Your task to perform on an android device: Open the calendar and show me this week's events? Image 0: 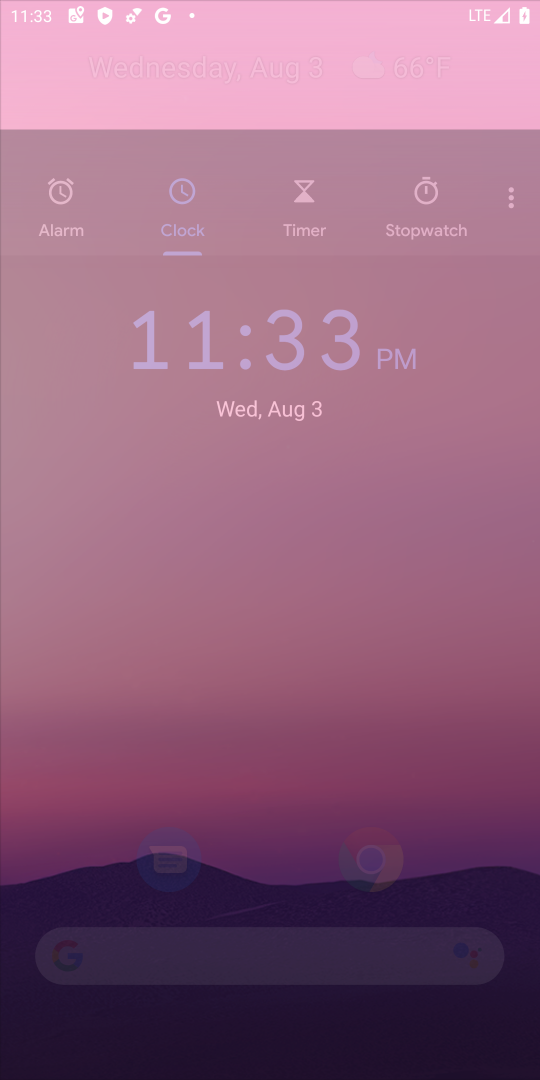
Step 0: press home button
Your task to perform on an android device: Open the calendar and show me this week's events? Image 1: 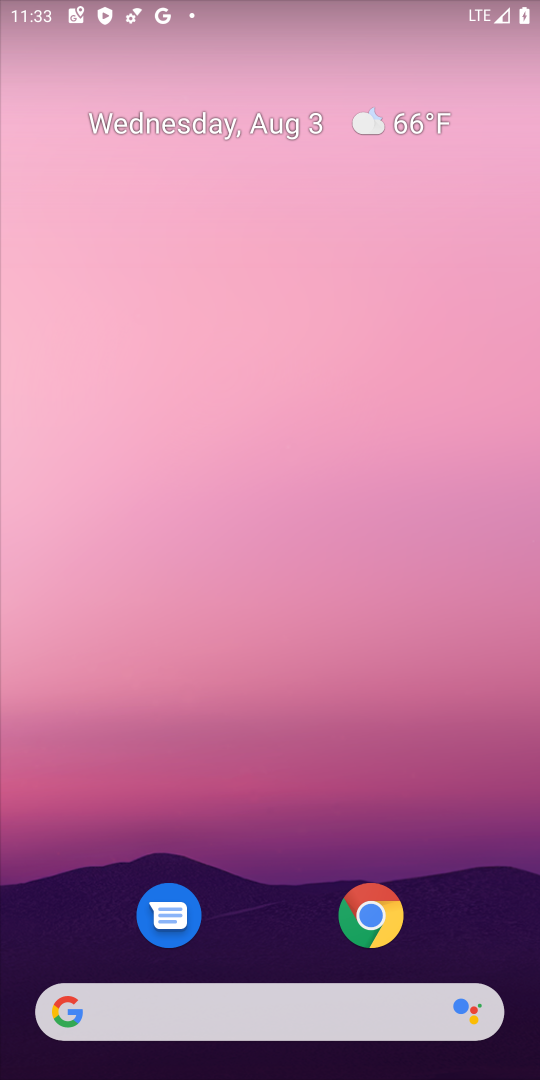
Step 1: drag from (234, 936) to (123, 265)
Your task to perform on an android device: Open the calendar and show me this week's events? Image 2: 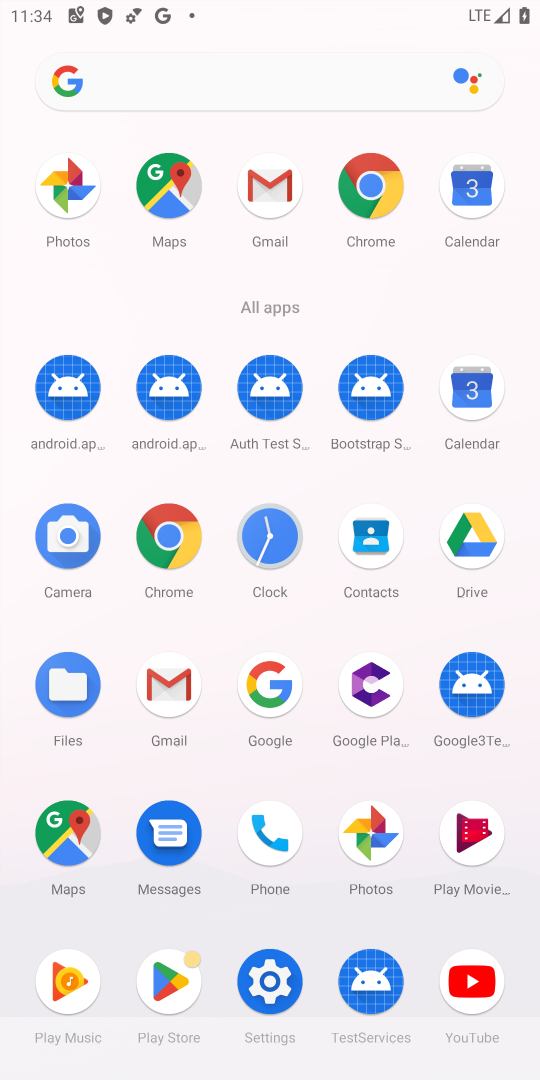
Step 2: click (483, 373)
Your task to perform on an android device: Open the calendar and show me this week's events? Image 3: 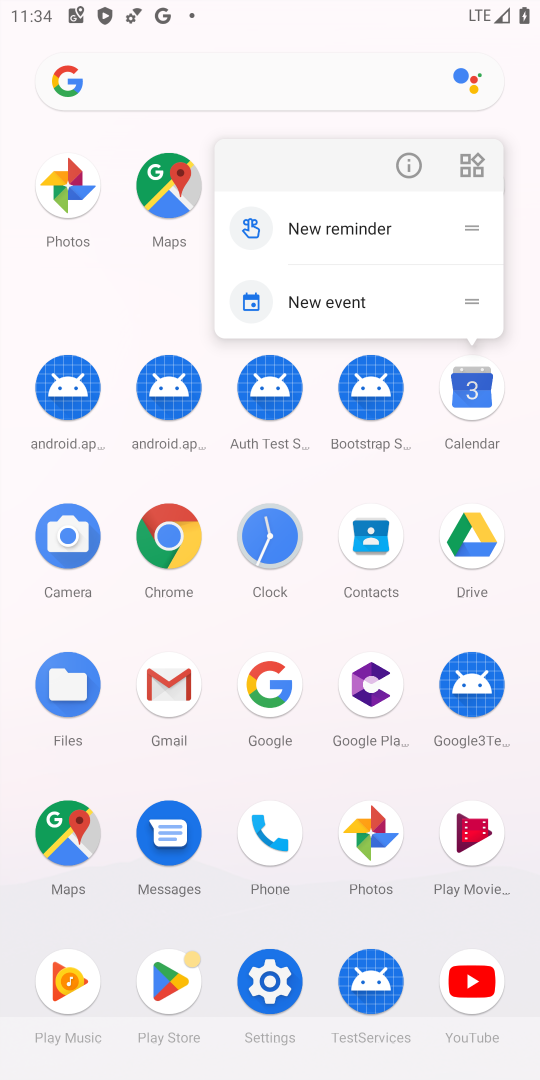
Step 3: click (473, 413)
Your task to perform on an android device: Open the calendar and show me this week's events? Image 4: 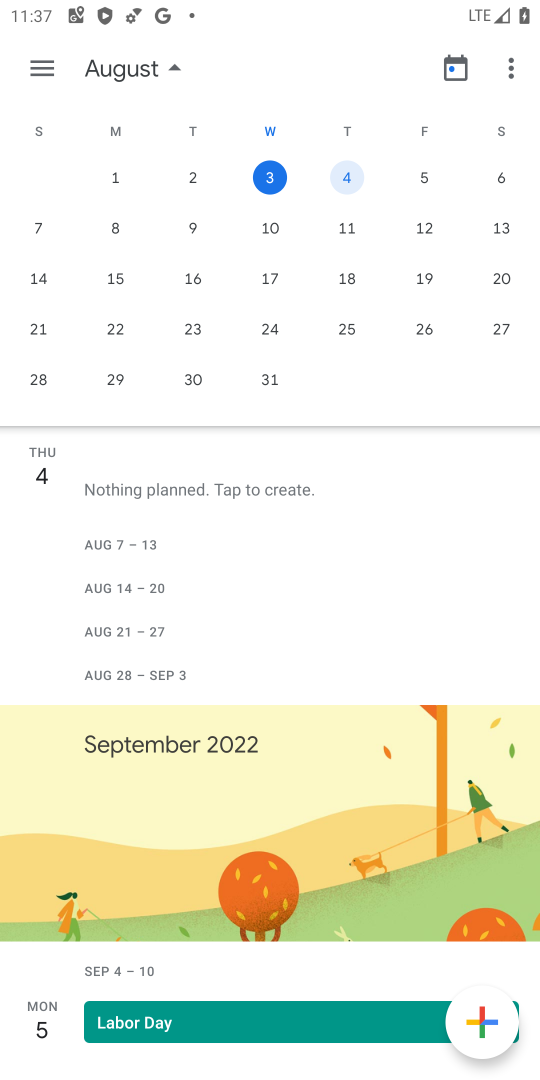
Step 4: click (274, 244)
Your task to perform on an android device: Open the calendar and show me this week's events? Image 5: 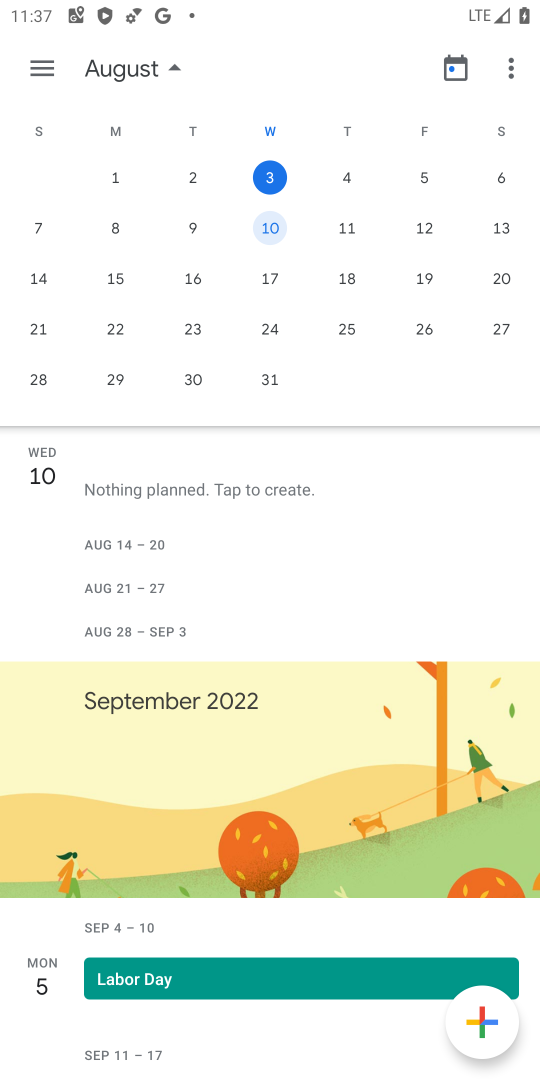
Step 5: task complete